Your task to perform on an android device: delete a single message in the gmail app Image 0: 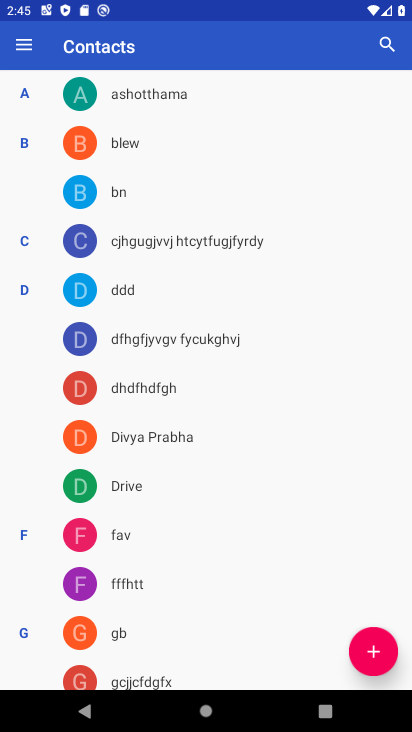
Step 0: press home button
Your task to perform on an android device: delete a single message in the gmail app Image 1: 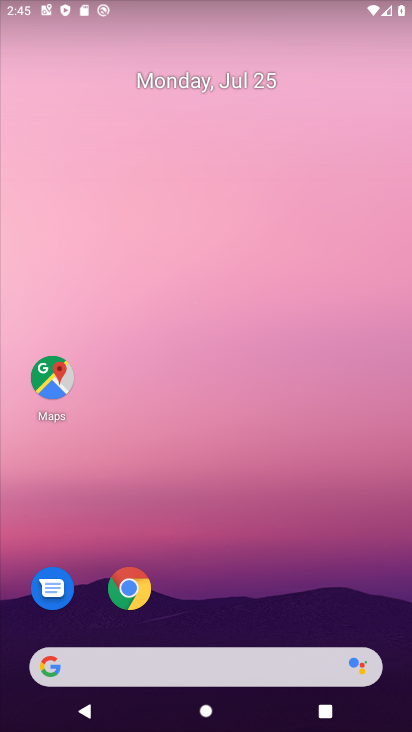
Step 1: drag from (215, 593) to (175, 117)
Your task to perform on an android device: delete a single message in the gmail app Image 2: 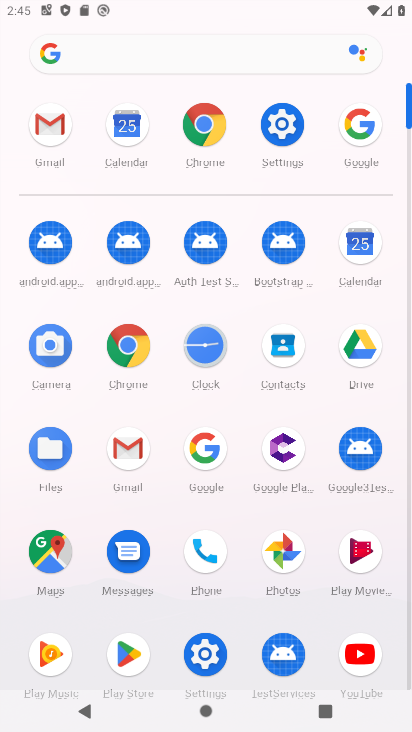
Step 2: click (64, 142)
Your task to perform on an android device: delete a single message in the gmail app Image 3: 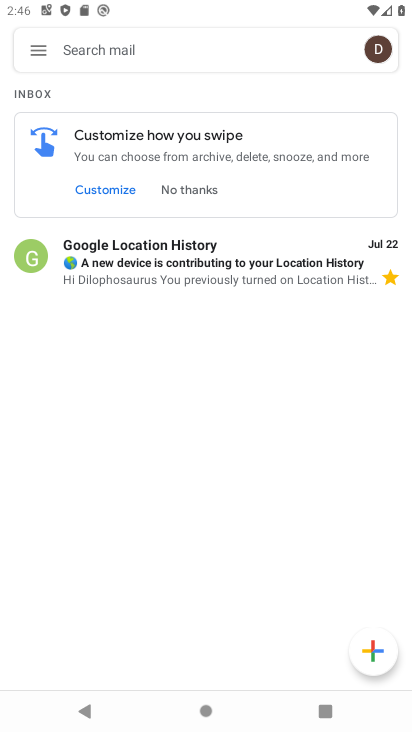
Step 3: click (155, 262)
Your task to perform on an android device: delete a single message in the gmail app Image 4: 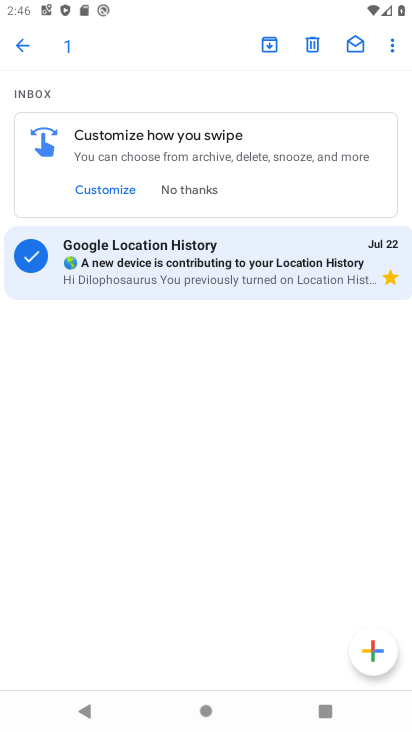
Step 4: click (305, 43)
Your task to perform on an android device: delete a single message in the gmail app Image 5: 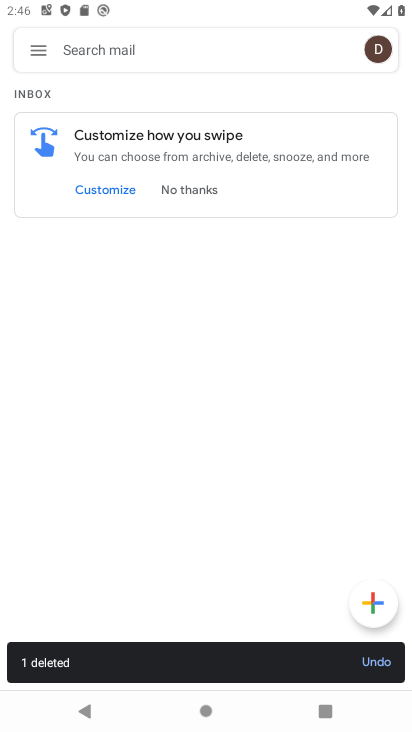
Step 5: task complete